Your task to perform on an android device: Go to Google maps Image 0: 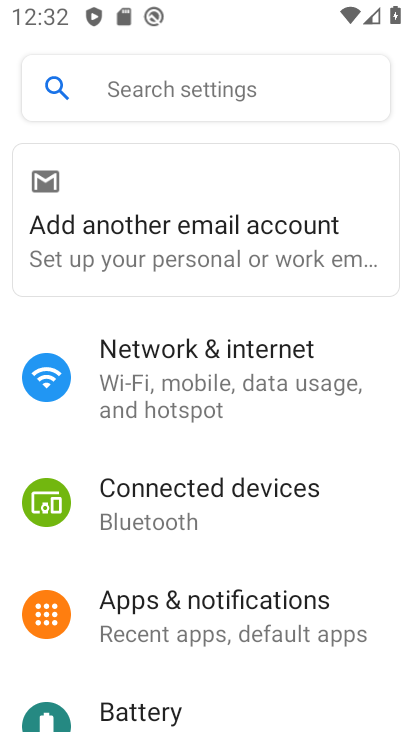
Step 0: press home button
Your task to perform on an android device: Go to Google maps Image 1: 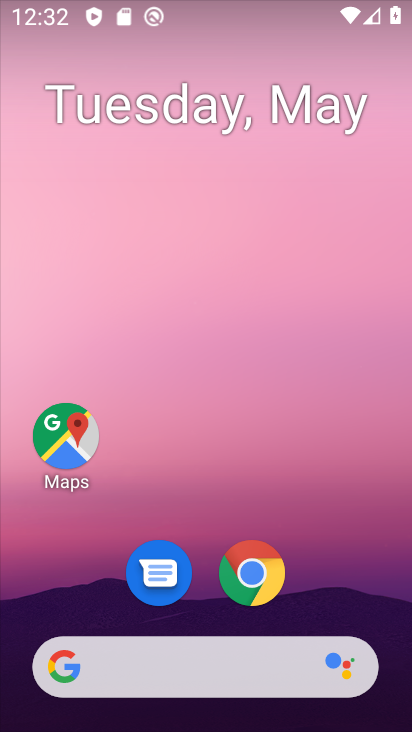
Step 1: click (81, 446)
Your task to perform on an android device: Go to Google maps Image 2: 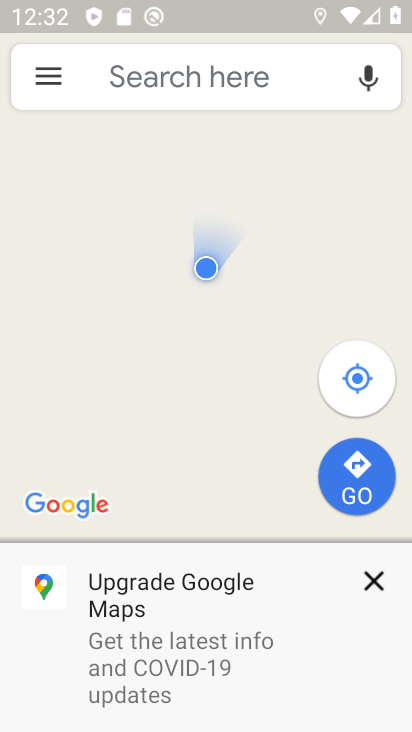
Step 2: click (380, 581)
Your task to perform on an android device: Go to Google maps Image 3: 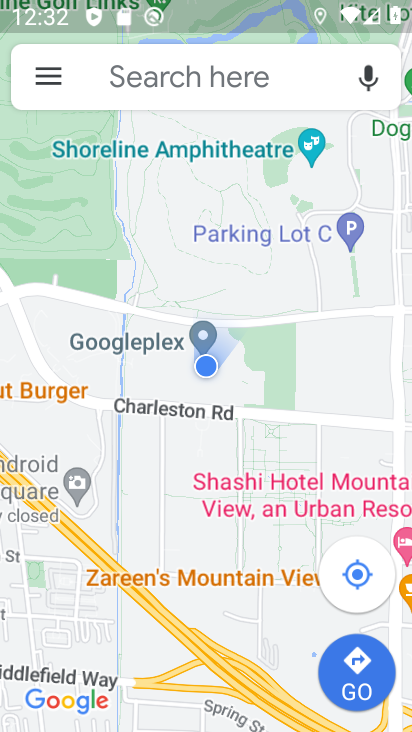
Step 3: task complete